Your task to perform on an android device: Do I have any events today? Image 0: 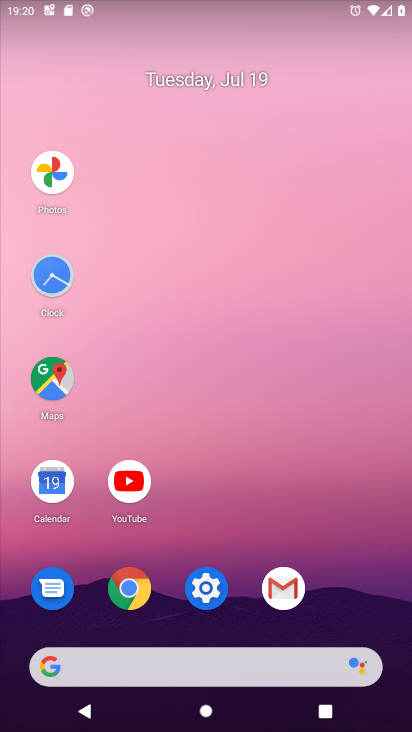
Step 0: click (42, 478)
Your task to perform on an android device: Do I have any events today? Image 1: 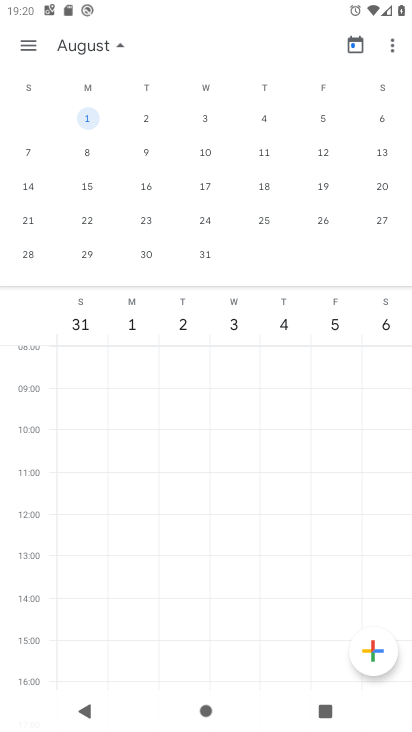
Step 1: click (24, 39)
Your task to perform on an android device: Do I have any events today? Image 2: 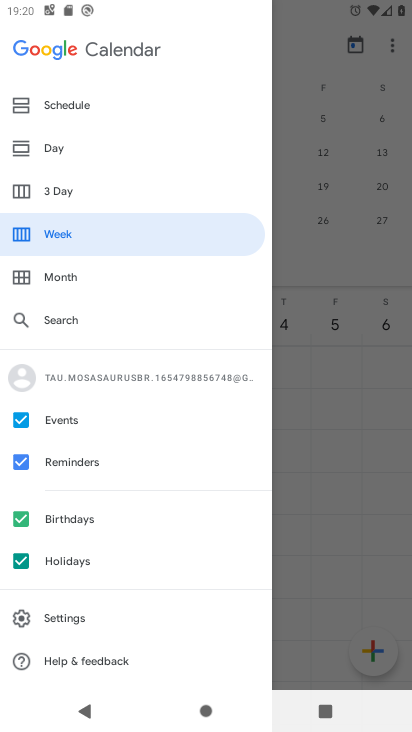
Step 2: click (24, 39)
Your task to perform on an android device: Do I have any events today? Image 3: 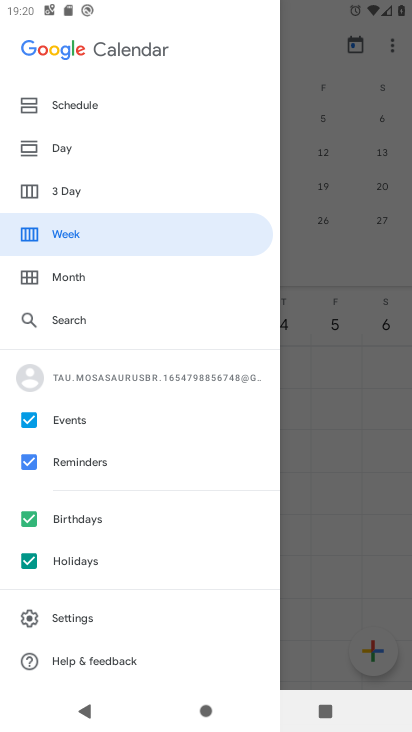
Step 3: click (58, 144)
Your task to perform on an android device: Do I have any events today? Image 4: 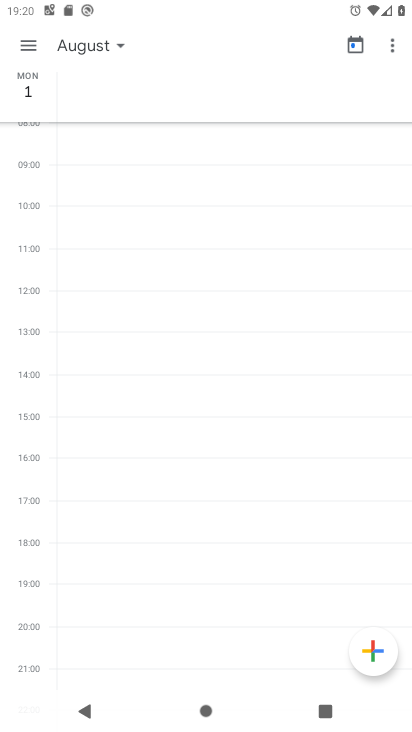
Step 4: click (123, 44)
Your task to perform on an android device: Do I have any events today? Image 5: 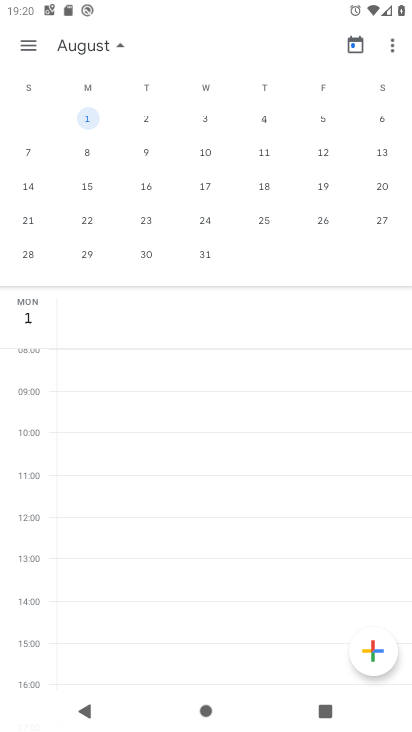
Step 5: drag from (43, 160) to (273, 208)
Your task to perform on an android device: Do I have any events today? Image 6: 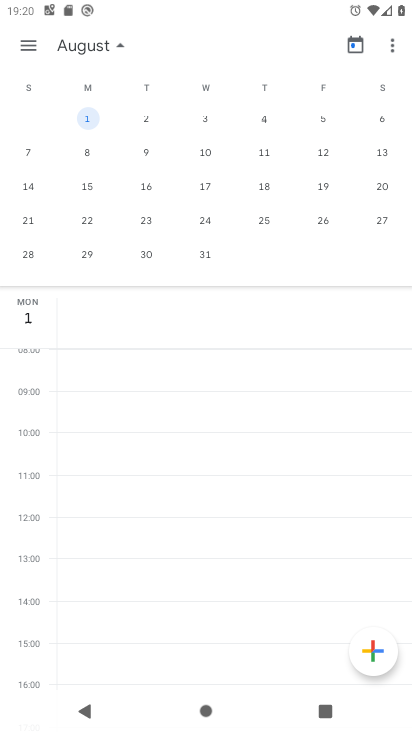
Step 6: drag from (36, 164) to (411, 164)
Your task to perform on an android device: Do I have any events today? Image 7: 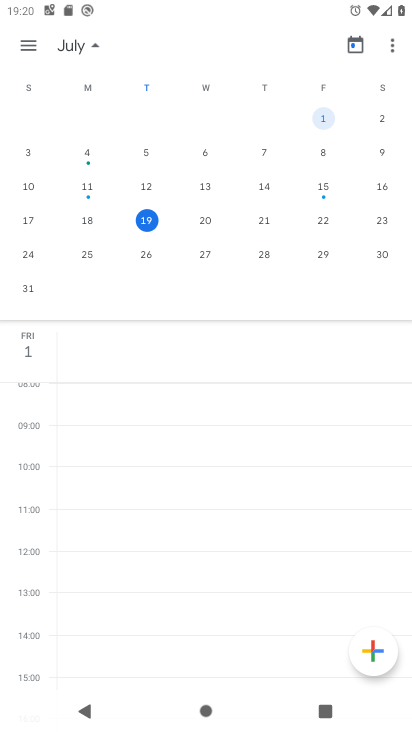
Step 7: click (145, 223)
Your task to perform on an android device: Do I have any events today? Image 8: 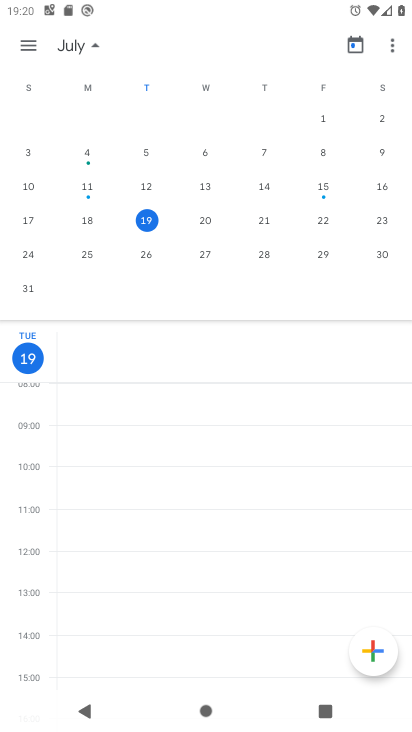
Step 8: task complete